Your task to perform on an android device: uninstall "Google Duo" Image 0: 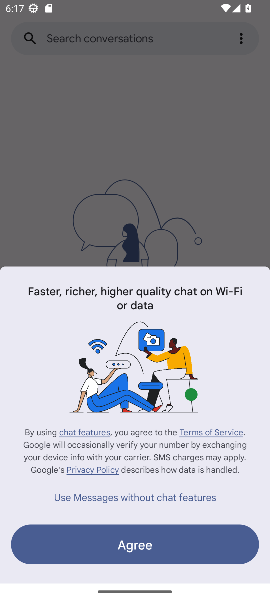
Step 0: press home button
Your task to perform on an android device: uninstall "Google Duo" Image 1: 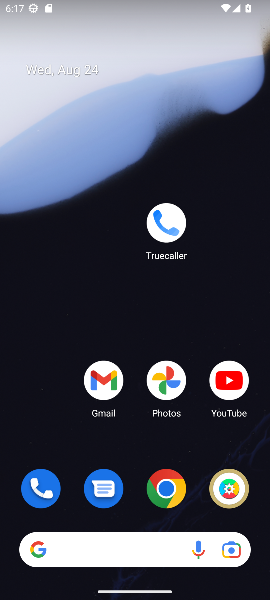
Step 1: drag from (144, 520) to (110, 67)
Your task to perform on an android device: uninstall "Google Duo" Image 2: 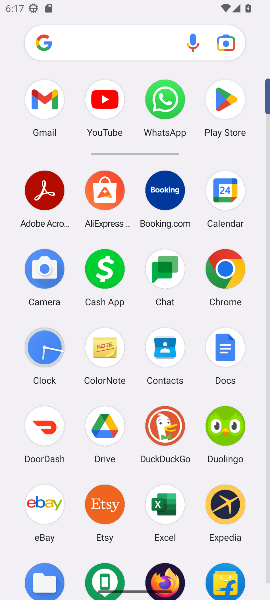
Step 2: click (221, 93)
Your task to perform on an android device: uninstall "Google Duo" Image 3: 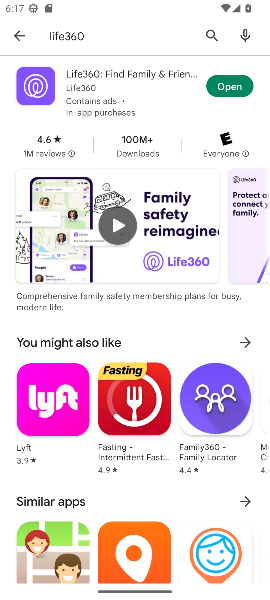
Step 3: click (201, 43)
Your task to perform on an android device: uninstall "Google Duo" Image 4: 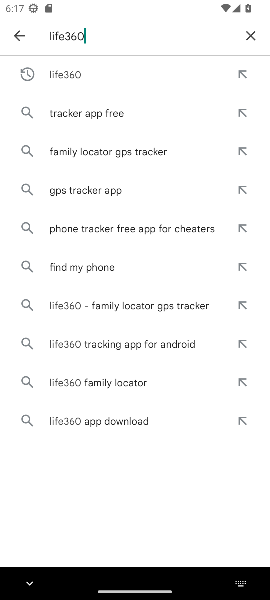
Step 4: click (243, 37)
Your task to perform on an android device: uninstall "Google Duo" Image 5: 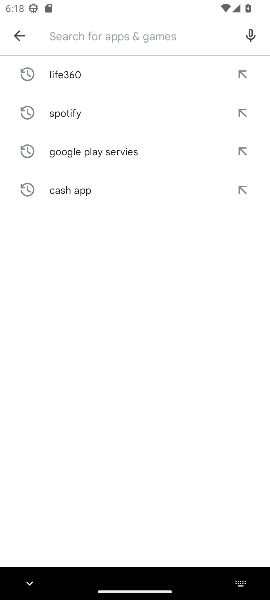
Step 5: type "goolge duo"
Your task to perform on an android device: uninstall "Google Duo" Image 6: 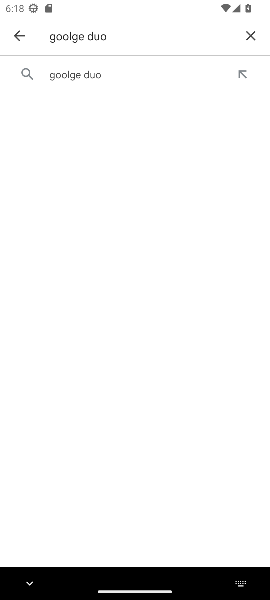
Step 6: click (147, 83)
Your task to perform on an android device: uninstall "Google Duo" Image 7: 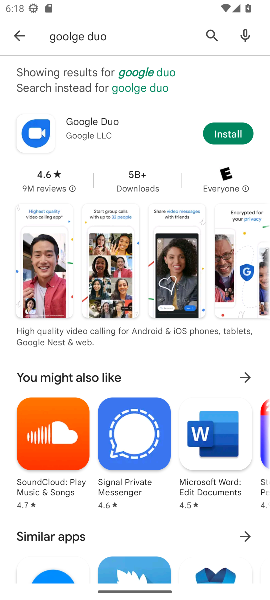
Step 7: click (234, 128)
Your task to perform on an android device: uninstall "Google Duo" Image 8: 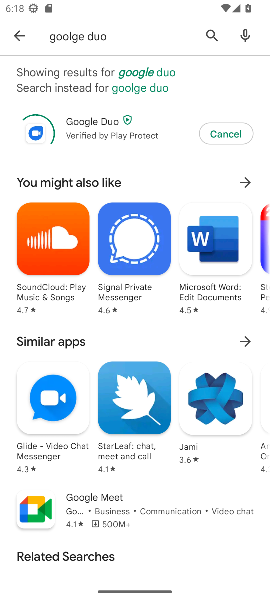
Step 8: task complete